Your task to perform on an android device: Turn on the flashlight Image 0: 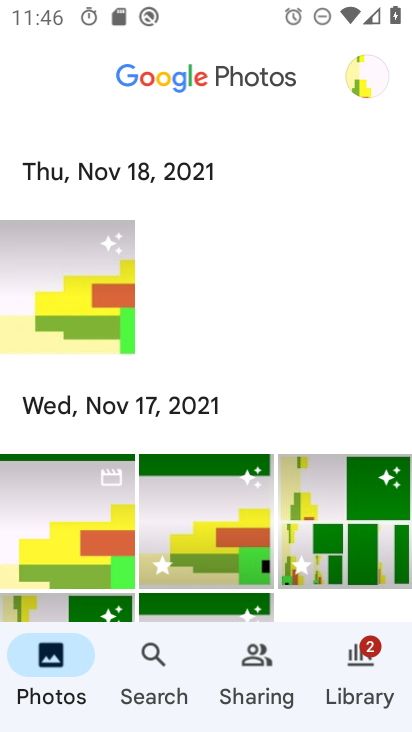
Step 0: press home button
Your task to perform on an android device: Turn on the flashlight Image 1: 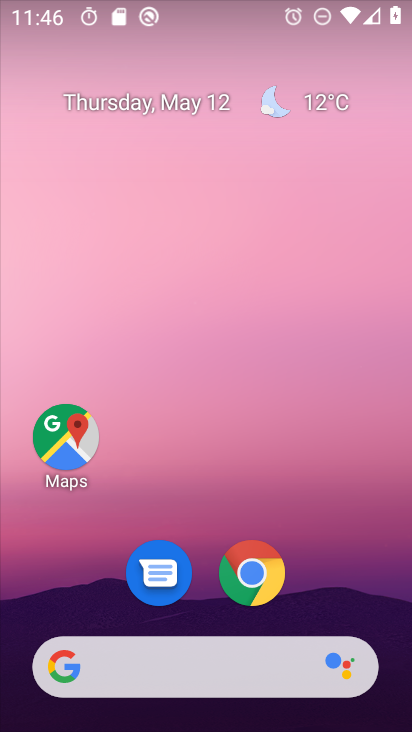
Step 1: drag from (398, 681) to (386, 292)
Your task to perform on an android device: Turn on the flashlight Image 2: 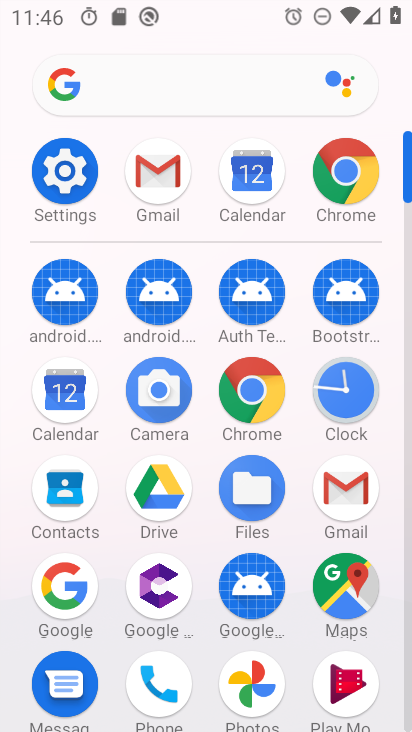
Step 2: click (65, 173)
Your task to perform on an android device: Turn on the flashlight Image 3: 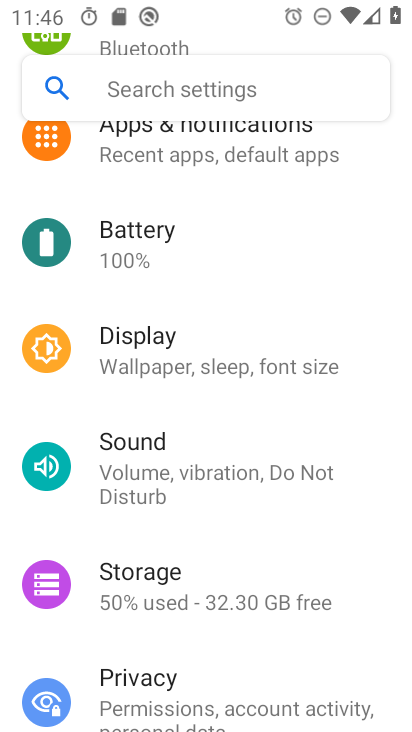
Step 3: click (163, 360)
Your task to perform on an android device: Turn on the flashlight Image 4: 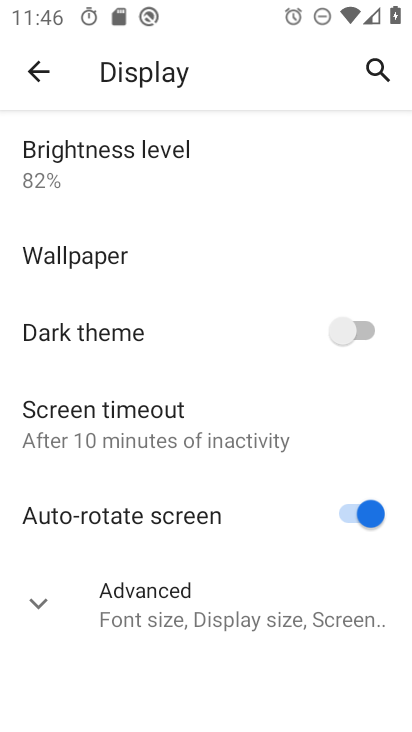
Step 4: task complete